Your task to perform on an android device: Open sound settings Image 0: 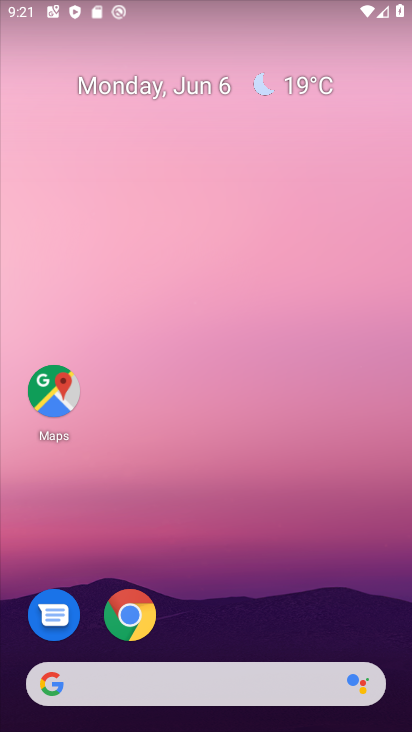
Step 0: drag from (211, 644) to (213, 62)
Your task to perform on an android device: Open sound settings Image 1: 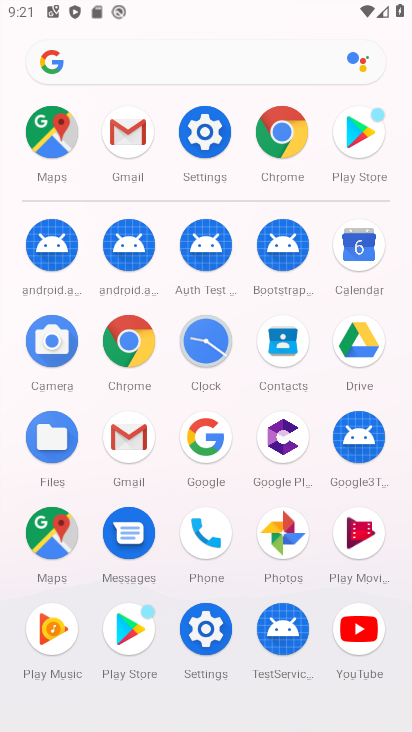
Step 1: click (195, 122)
Your task to perform on an android device: Open sound settings Image 2: 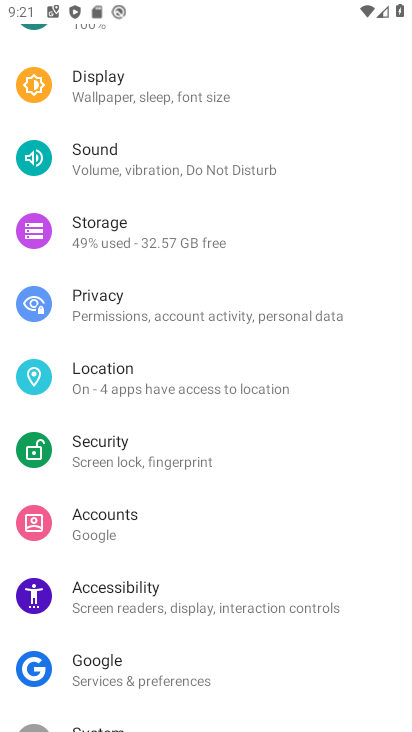
Step 2: click (91, 152)
Your task to perform on an android device: Open sound settings Image 3: 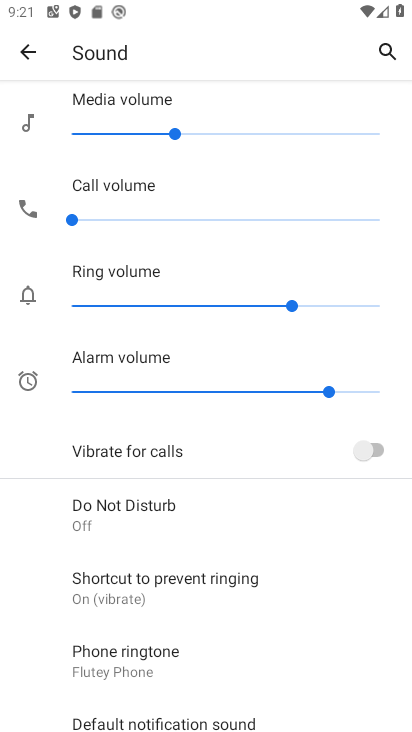
Step 3: task complete